Your task to perform on an android device: allow notifications from all sites in the chrome app Image 0: 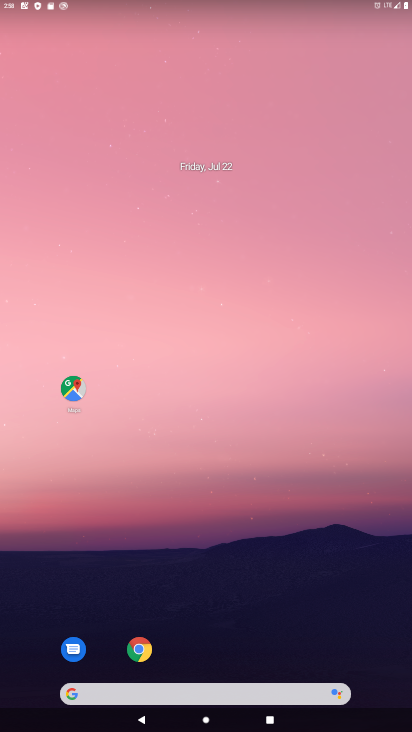
Step 0: drag from (206, 516) to (216, 111)
Your task to perform on an android device: allow notifications from all sites in the chrome app Image 1: 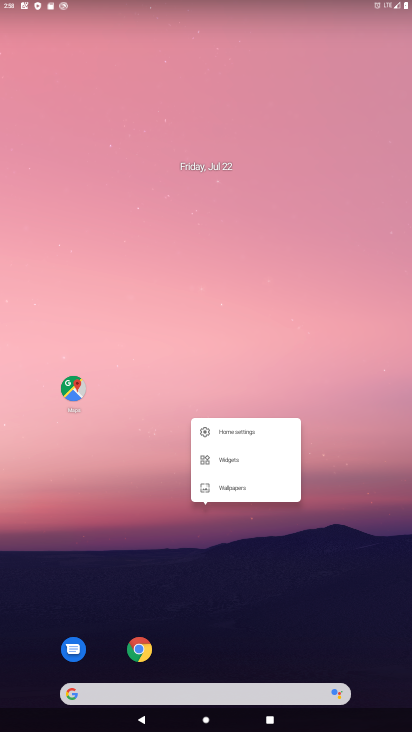
Step 1: drag from (209, 610) to (221, 123)
Your task to perform on an android device: allow notifications from all sites in the chrome app Image 2: 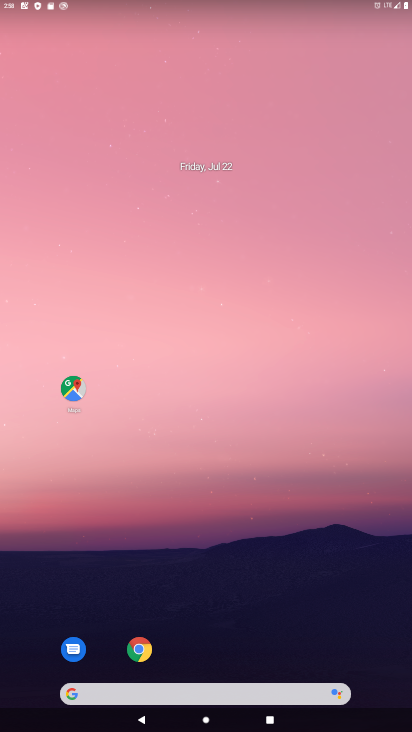
Step 2: drag from (189, 587) to (220, 127)
Your task to perform on an android device: allow notifications from all sites in the chrome app Image 3: 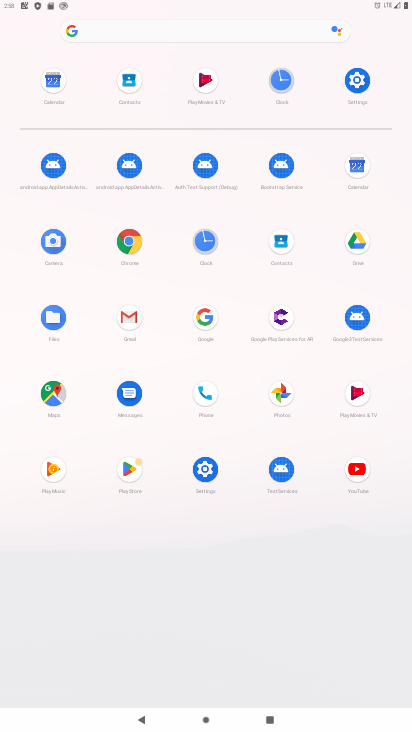
Step 3: click (128, 240)
Your task to perform on an android device: allow notifications from all sites in the chrome app Image 4: 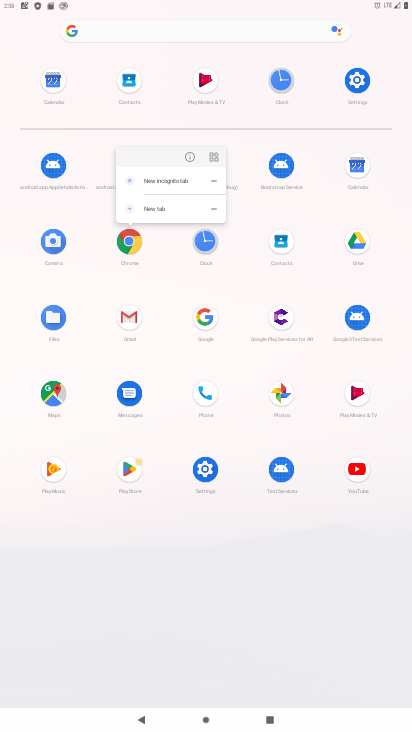
Step 4: click (192, 160)
Your task to perform on an android device: allow notifications from all sites in the chrome app Image 5: 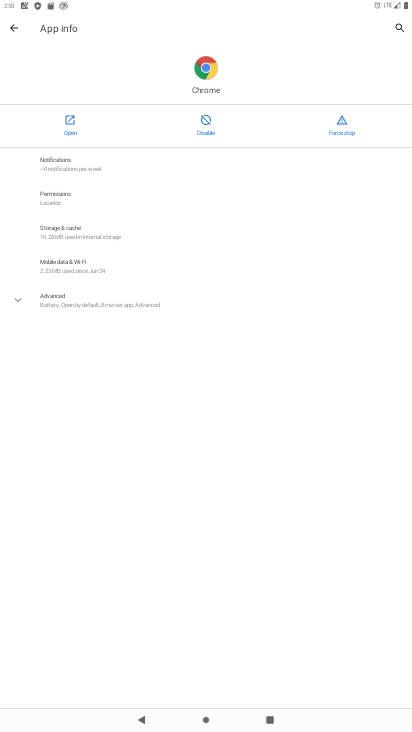
Step 5: click (68, 115)
Your task to perform on an android device: allow notifications from all sites in the chrome app Image 6: 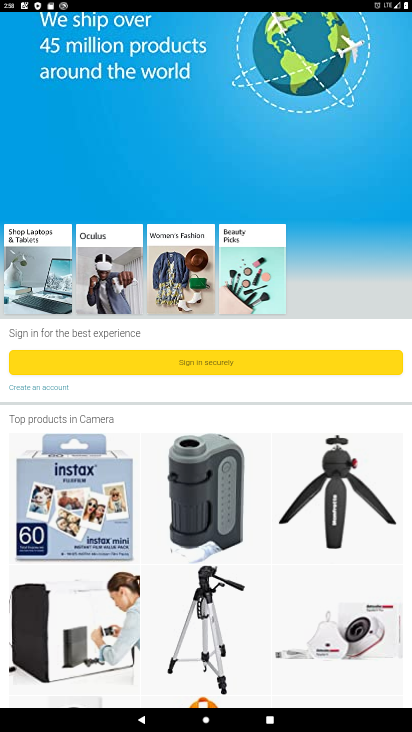
Step 6: drag from (275, 517) to (304, 191)
Your task to perform on an android device: allow notifications from all sites in the chrome app Image 7: 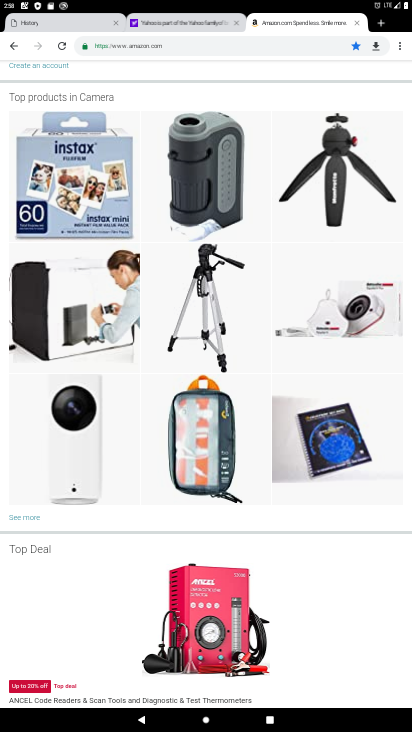
Step 7: drag from (227, 473) to (232, 273)
Your task to perform on an android device: allow notifications from all sites in the chrome app Image 8: 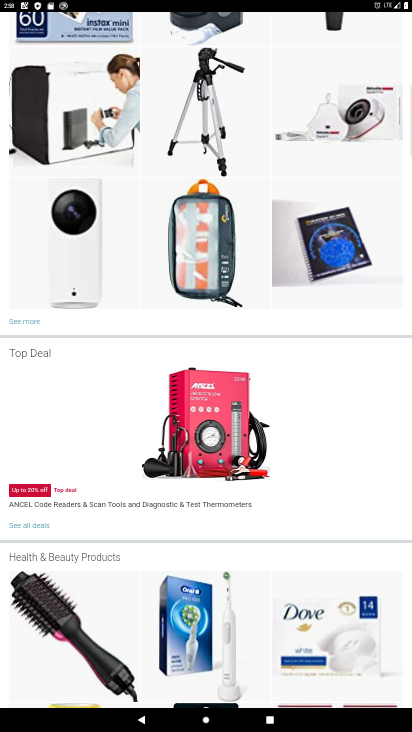
Step 8: drag from (231, 201) to (388, 240)
Your task to perform on an android device: allow notifications from all sites in the chrome app Image 9: 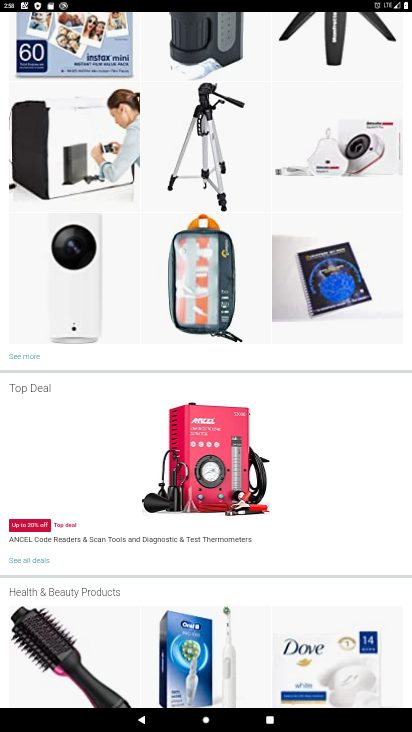
Step 9: drag from (290, 365) to (410, 702)
Your task to perform on an android device: allow notifications from all sites in the chrome app Image 10: 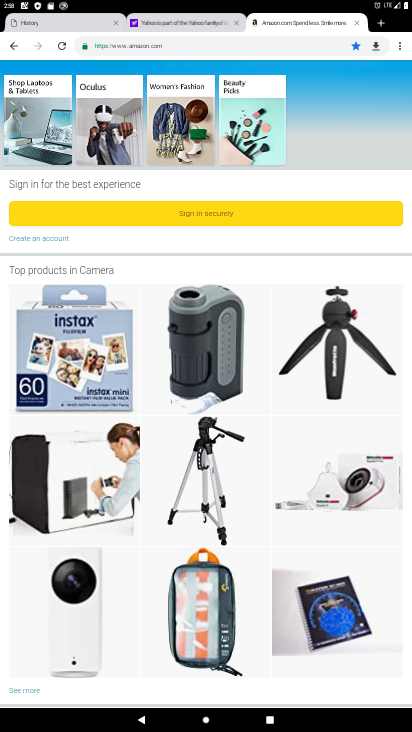
Step 10: drag from (399, 50) to (327, 306)
Your task to perform on an android device: allow notifications from all sites in the chrome app Image 11: 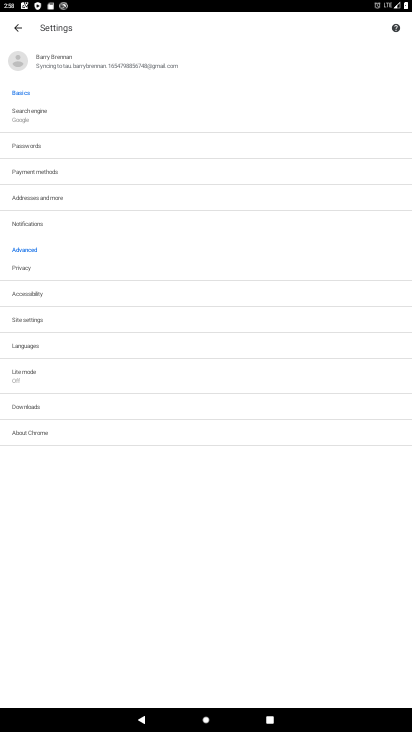
Step 11: click (39, 304)
Your task to perform on an android device: allow notifications from all sites in the chrome app Image 12: 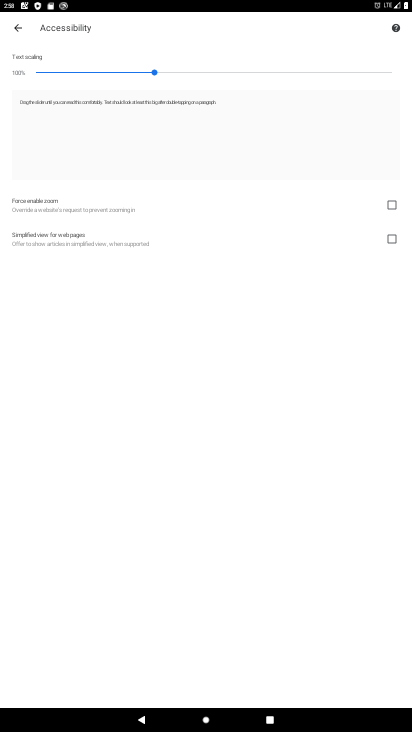
Step 12: click (14, 25)
Your task to perform on an android device: allow notifications from all sites in the chrome app Image 13: 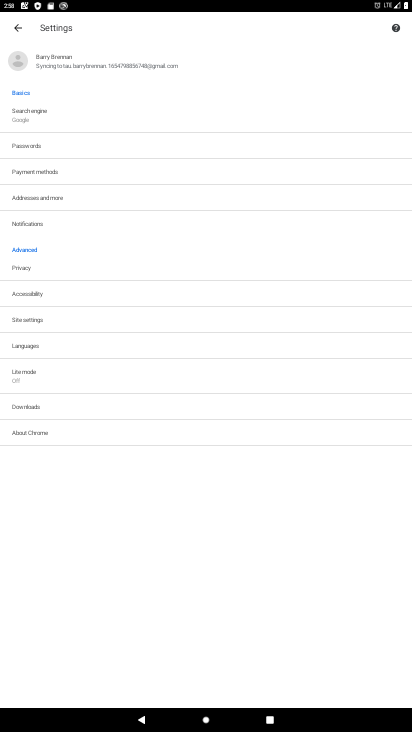
Step 13: click (59, 325)
Your task to perform on an android device: allow notifications from all sites in the chrome app Image 14: 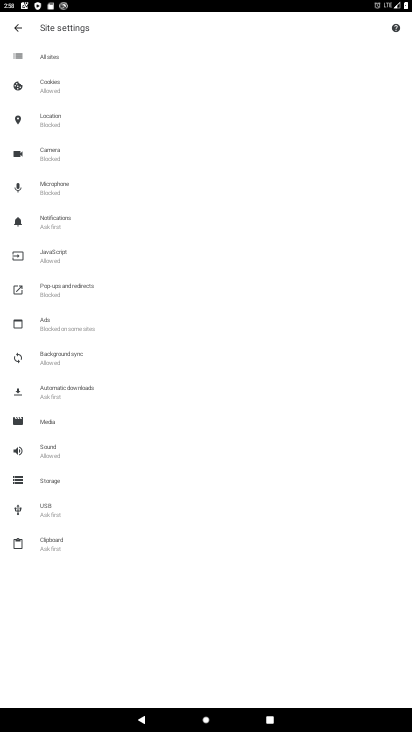
Step 14: drag from (221, 443) to (200, 25)
Your task to perform on an android device: allow notifications from all sites in the chrome app Image 15: 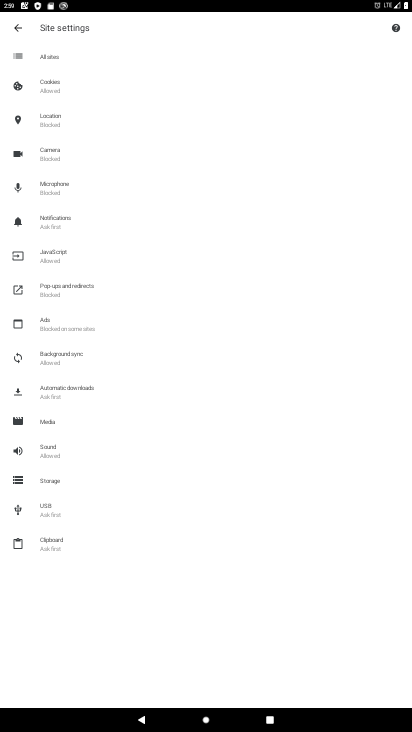
Step 15: drag from (278, 579) to (285, 317)
Your task to perform on an android device: allow notifications from all sites in the chrome app Image 16: 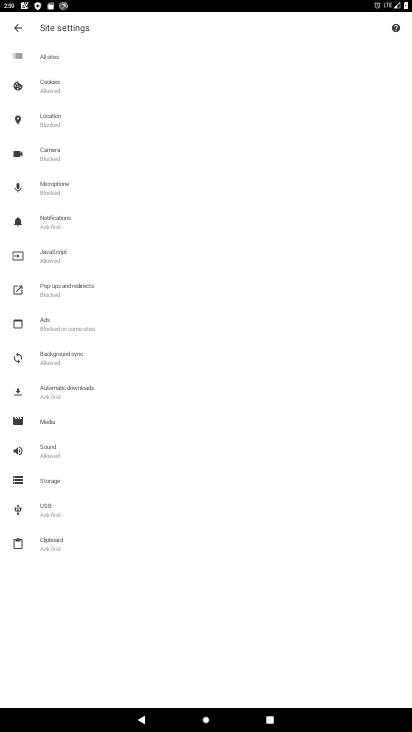
Step 16: click (71, 223)
Your task to perform on an android device: allow notifications from all sites in the chrome app Image 17: 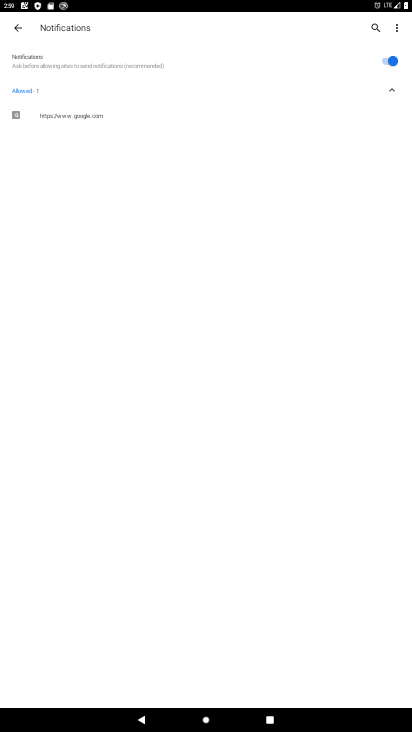
Step 17: task complete